Your task to perform on an android device: change your default location settings in chrome Image 0: 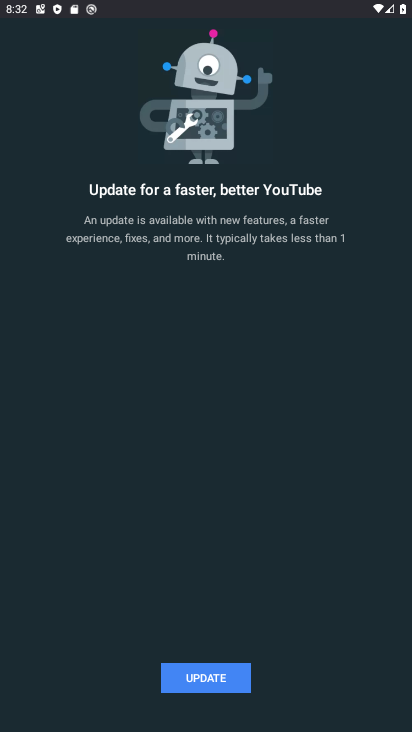
Step 0: press home button
Your task to perform on an android device: change your default location settings in chrome Image 1: 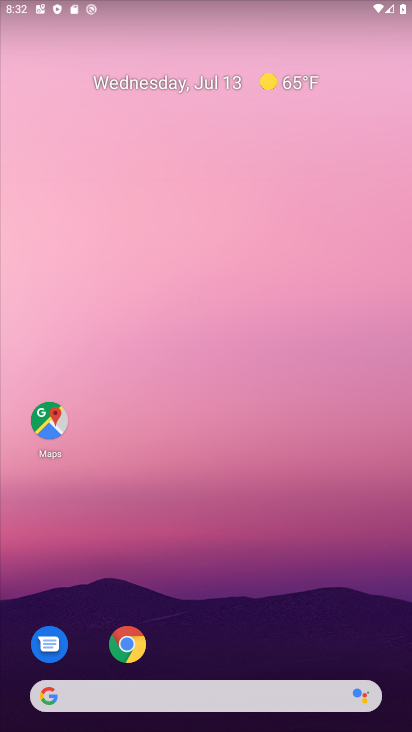
Step 1: drag from (302, 646) to (134, 17)
Your task to perform on an android device: change your default location settings in chrome Image 2: 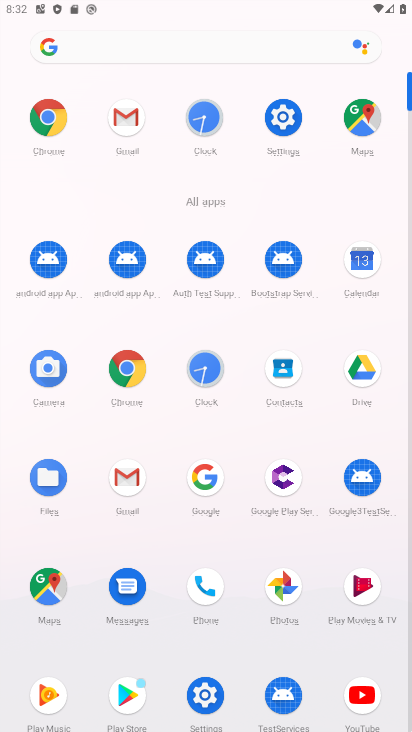
Step 2: click (43, 123)
Your task to perform on an android device: change your default location settings in chrome Image 3: 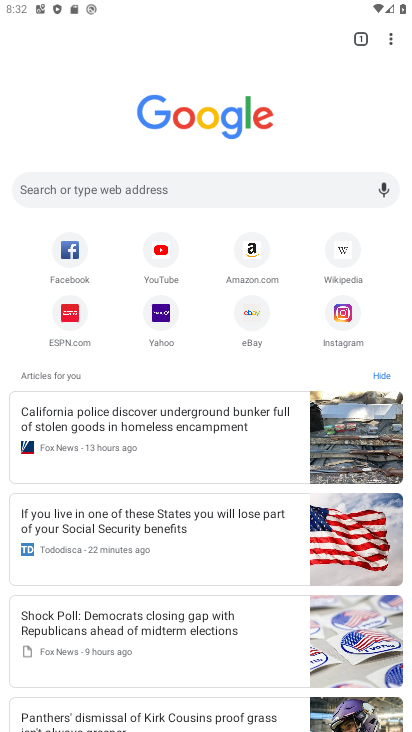
Step 3: drag from (389, 40) to (257, 334)
Your task to perform on an android device: change your default location settings in chrome Image 4: 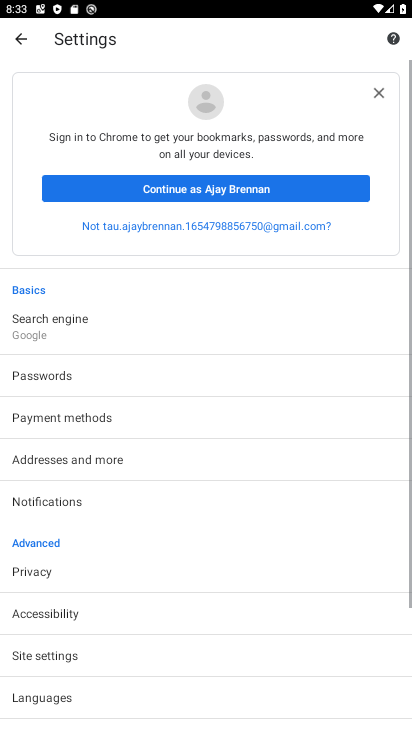
Step 4: drag from (78, 660) to (106, 250)
Your task to perform on an android device: change your default location settings in chrome Image 5: 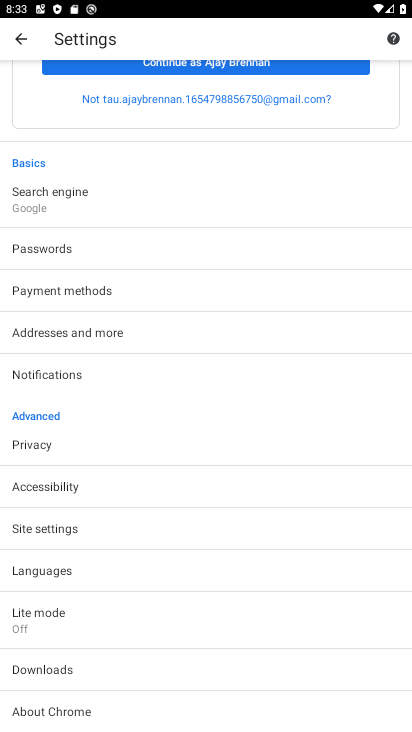
Step 5: click (37, 534)
Your task to perform on an android device: change your default location settings in chrome Image 6: 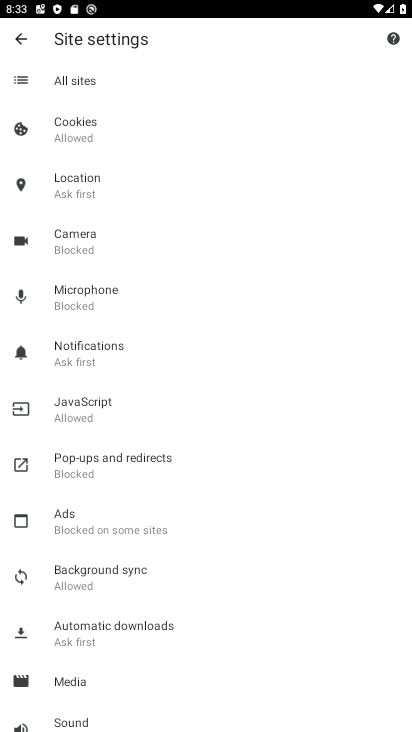
Step 6: click (65, 187)
Your task to perform on an android device: change your default location settings in chrome Image 7: 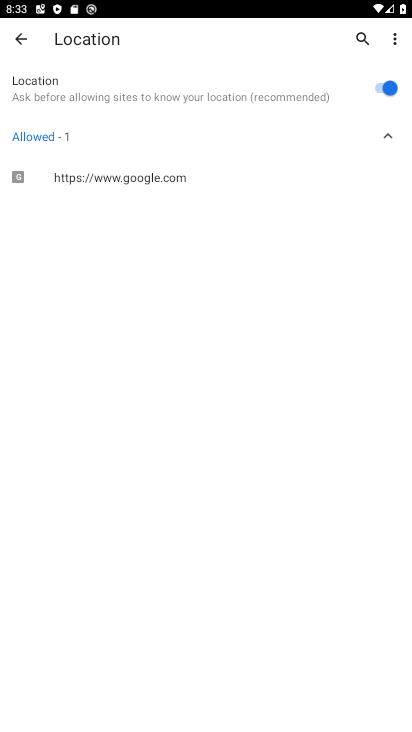
Step 7: click (383, 86)
Your task to perform on an android device: change your default location settings in chrome Image 8: 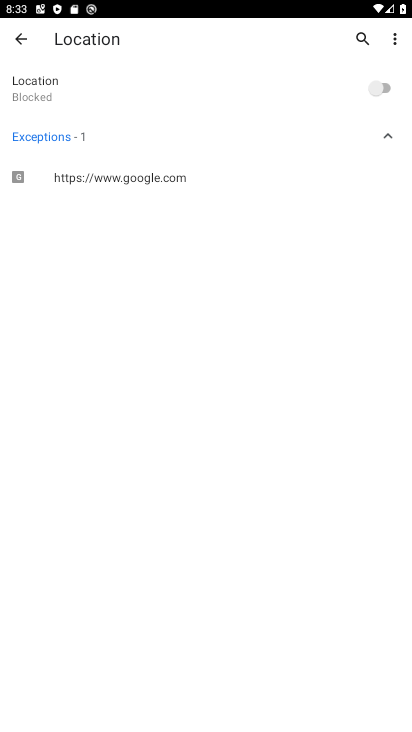
Step 8: task complete